Your task to perform on an android device: turn on notifications settings in the gmail app Image 0: 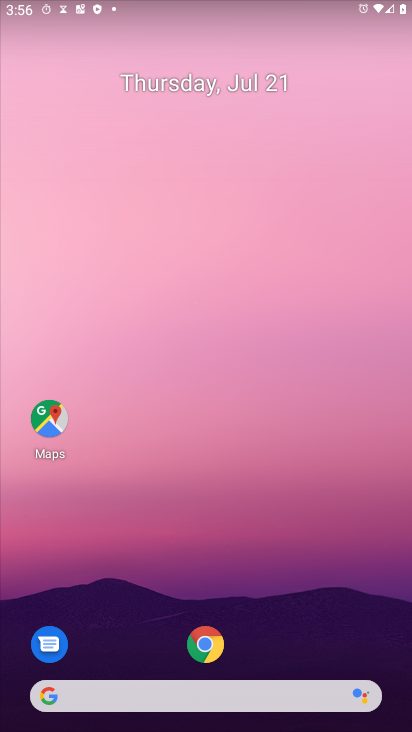
Step 0: press home button
Your task to perform on an android device: turn on notifications settings in the gmail app Image 1: 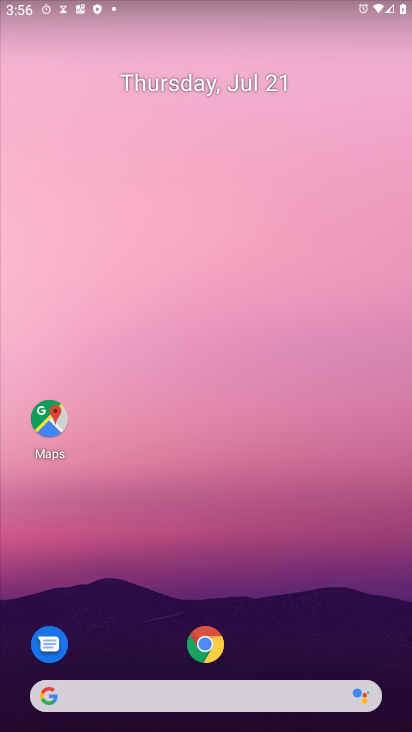
Step 1: drag from (311, 622) to (318, 0)
Your task to perform on an android device: turn on notifications settings in the gmail app Image 2: 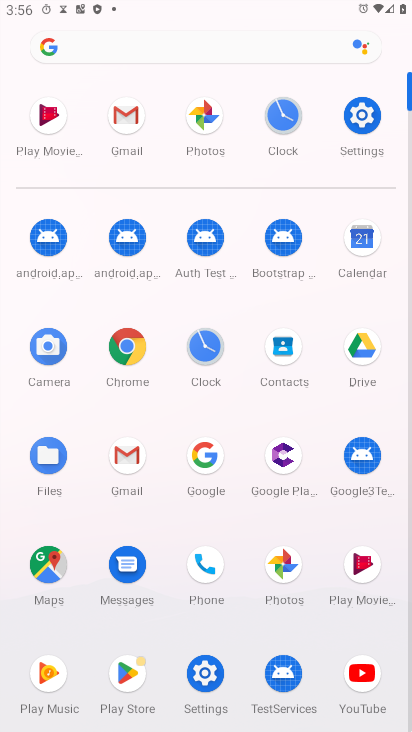
Step 2: click (116, 118)
Your task to perform on an android device: turn on notifications settings in the gmail app Image 3: 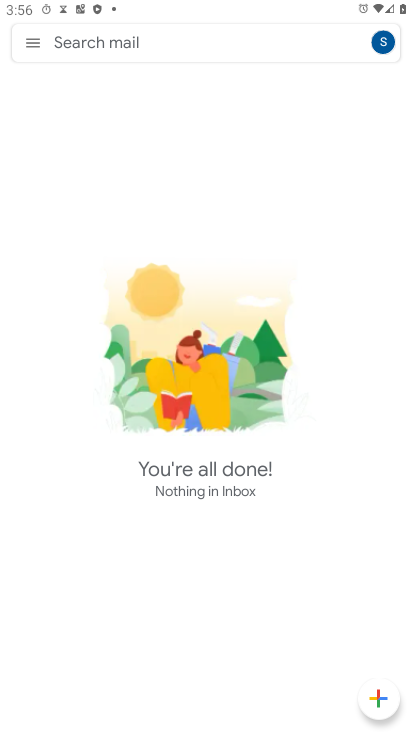
Step 3: click (22, 46)
Your task to perform on an android device: turn on notifications settings in the gmail app Image 4: 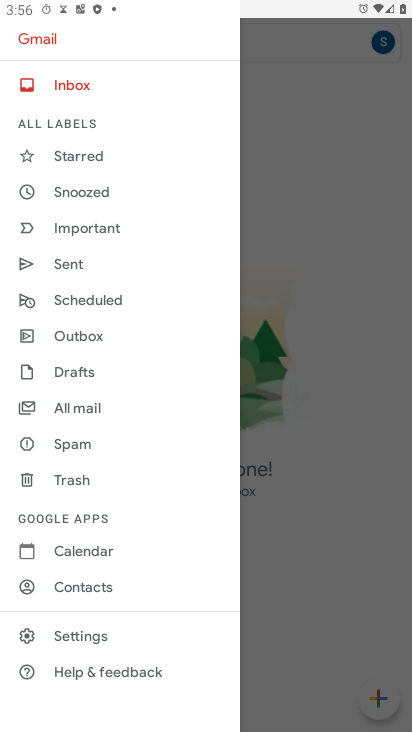
Step 4: click (65, 627)
Your task to perform on an android device: turn on notifications settings in the gmail app Image 5: 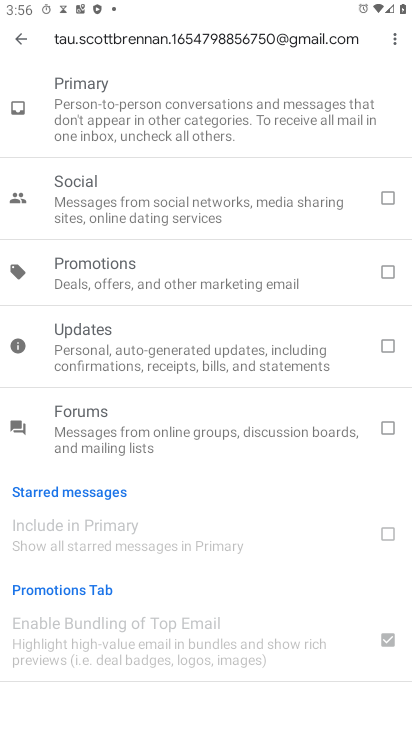
Step 5: click (11, 39)
Your task to perform on an android device: turn on notifications settings in the gmail app Image 6: 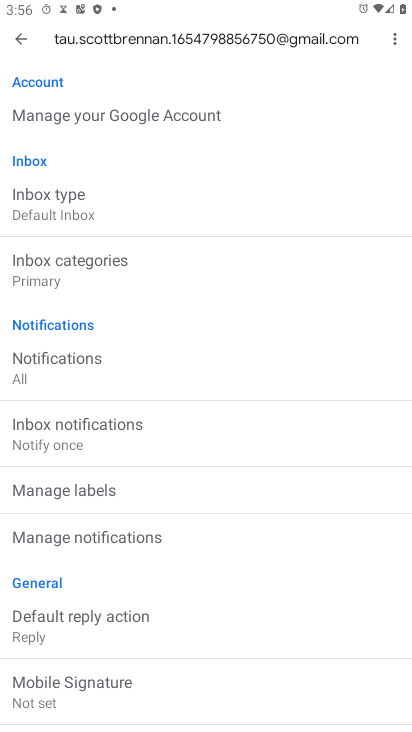
Step 6: click (53, 544)
Your task to perform on an android device: turn on notifications settings in the gmail app Image 7: 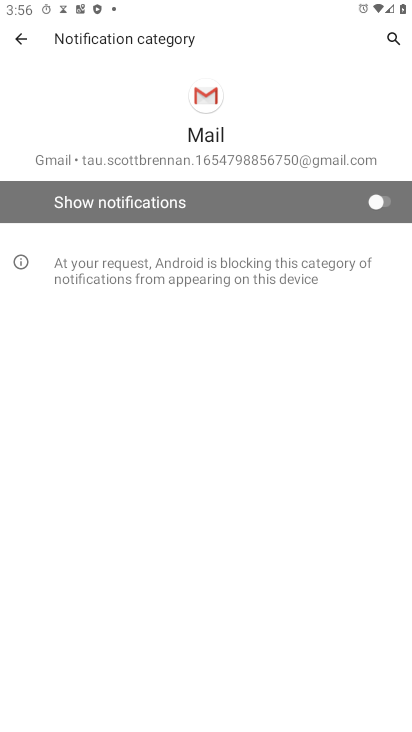
Step 7: click (375, 196)
Your task to perform on an android device: turn on notifications settings in the gmail app Image 8: 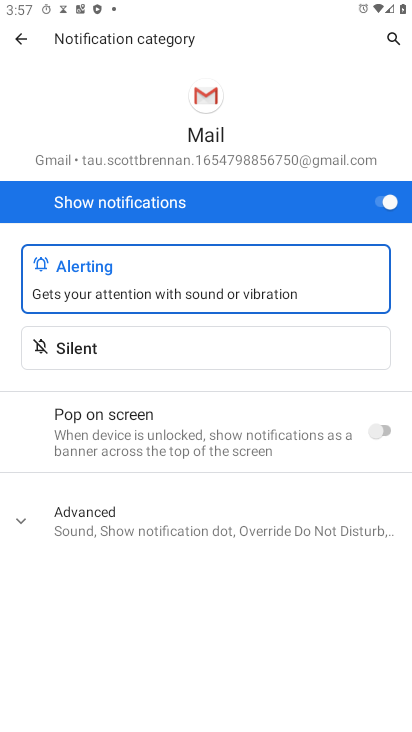
Step 8: task complete